Your task to perform on an android device: change the clock display to digital Image 0: 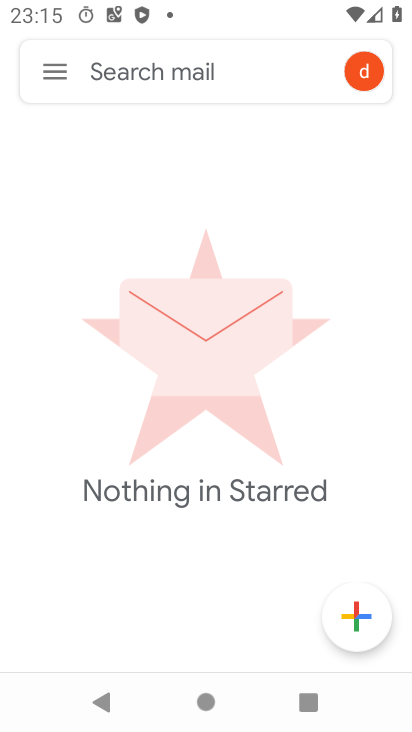
Step 0: drag from (235, 574) to (318, 47)
Your task to perform on an android device: change the clock display to digital Image 1: 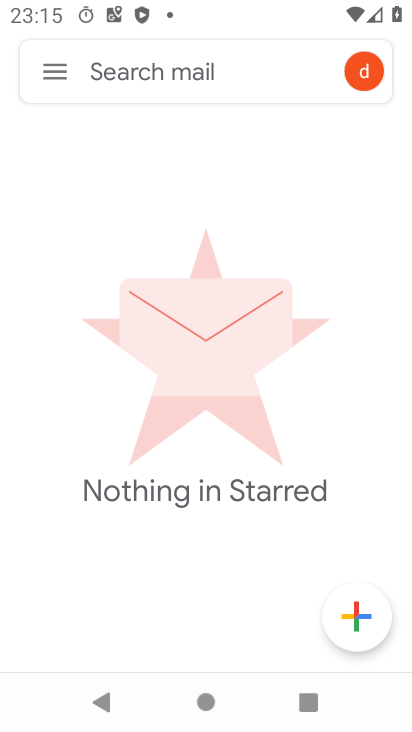
Step 1: press home button
Your task to perform on an android device: change the clock display to digital Image 2: 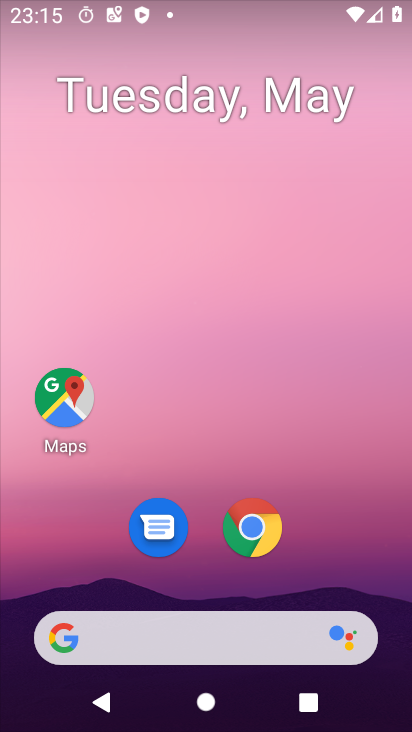
Step 2: drag from (211, 585) to (104, 1)
Your task to perform on an android device: change the clock display to digital Image 3: 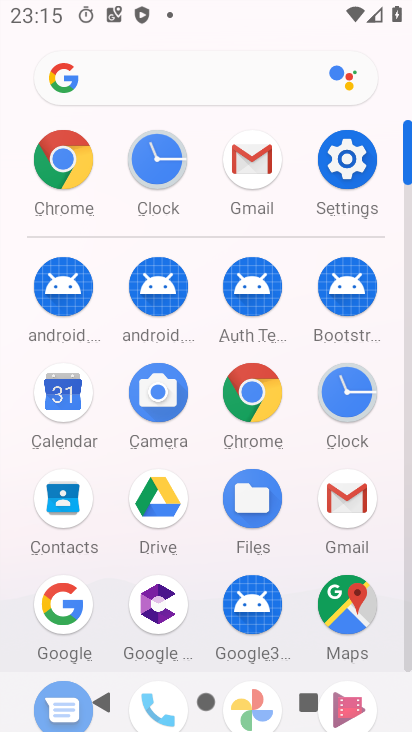
Step 3: click (318, 415)
Your task to perform on an android device: change the clock display to digital Image 4: 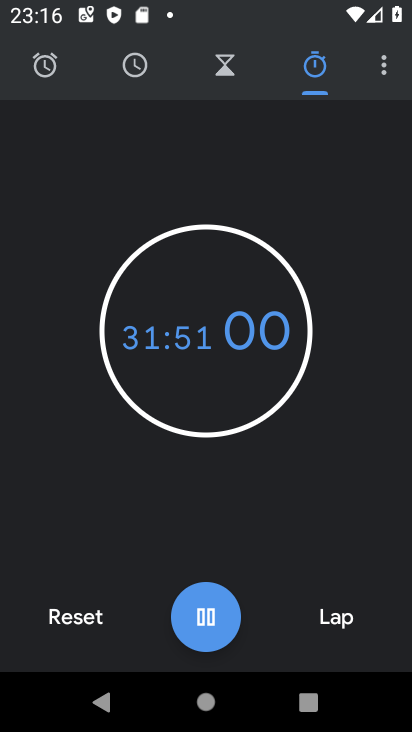
Step 4: drag from (381, 60) to (392, 96)
Your task to perform on an android device: change the clock display to digital Image 5: 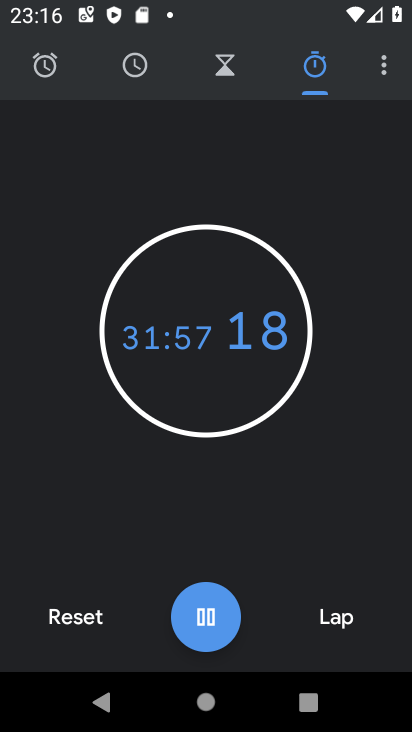
Step 5: click (385, 61)
Your task to perform on an android device: change the clock display to digital Image 6: 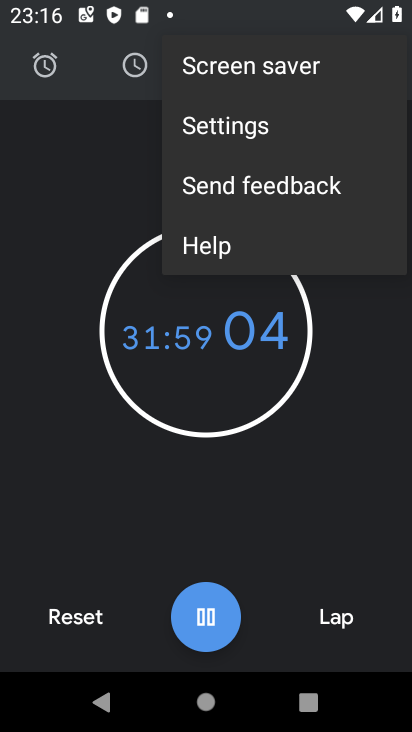
Step 6: click (268, 117)
Your task to perform on an android device: change the clock display to digital Image 7: 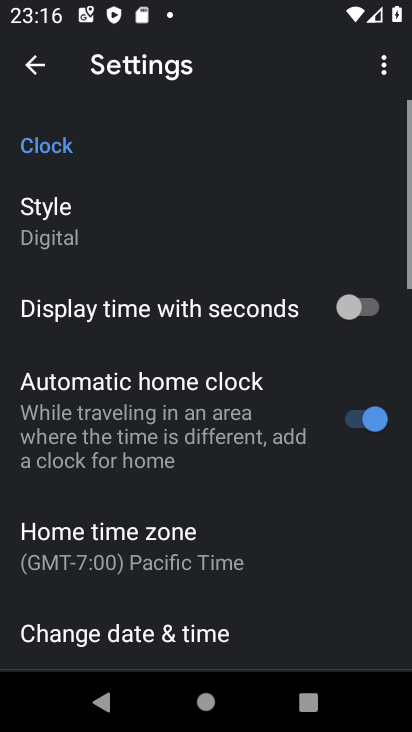
Step 7: task complete